Your task to perform on an android device: change notifications settings Image 0: 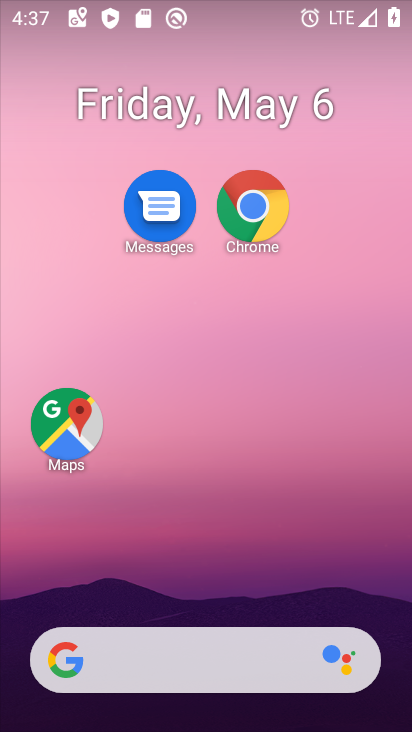
Step 0: drag from (178, 628) to (139, 302)
Your task to perform on an android device: change notifications settings Image 1: 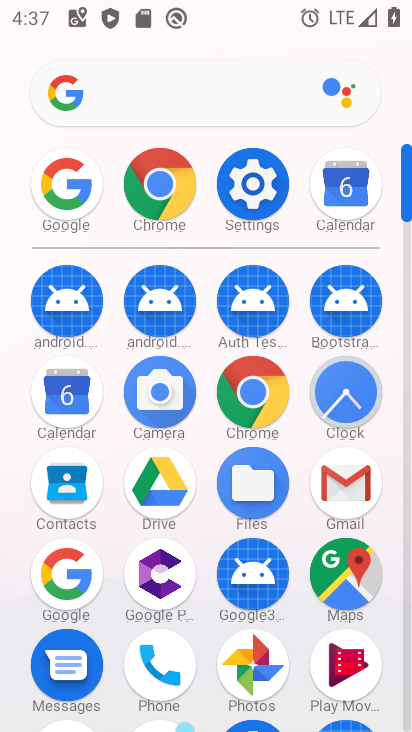
Step 1: click (261, 189)
Your task to perform on an android device: change notifications settings Image 2: 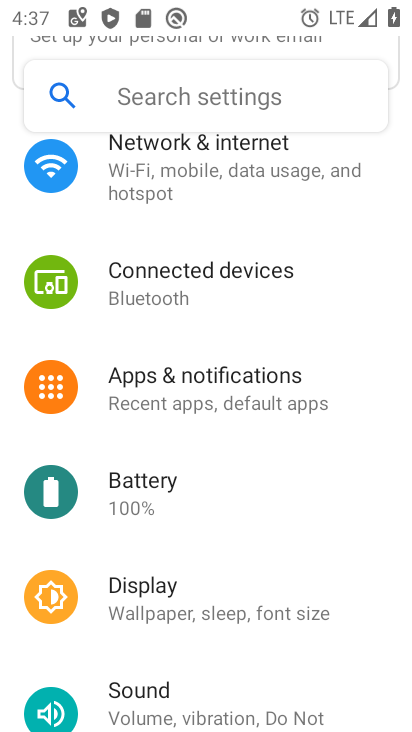
Step 2: click (193, 385)
Your task to perform on an android device: change notifications settings Image 3: 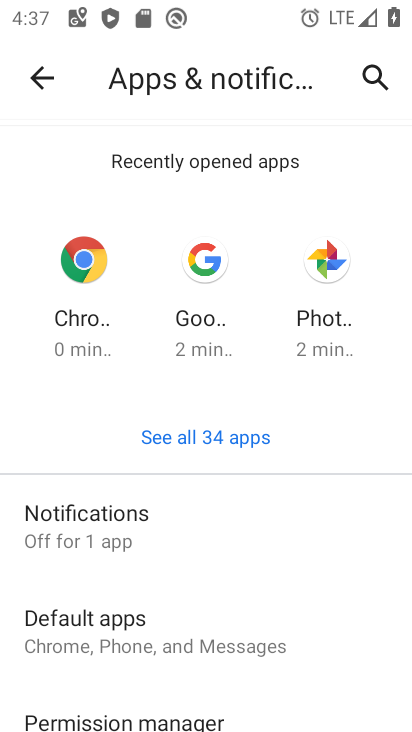
Step 3: click (106, 535)
Your task to perform on an android device: change notifications settings Image 4: 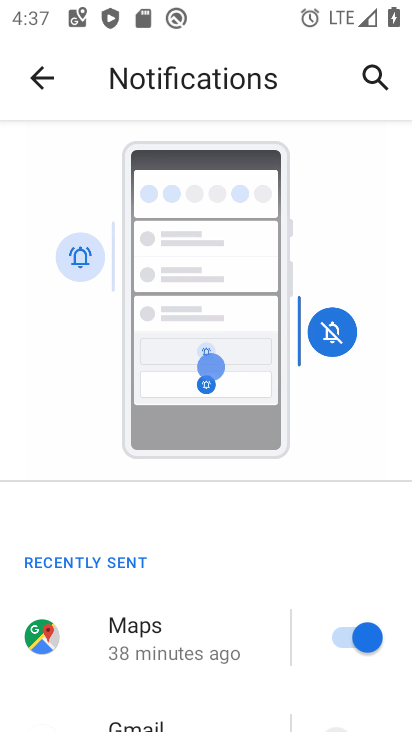
Step 4: drag from (248, 599) to (239, 338)
Your task to perform on an android device: change notifications settings Image 5: 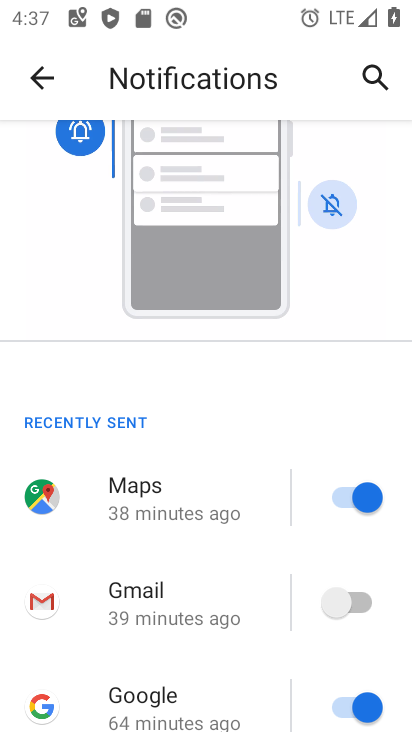
Step 5: click (344, 493)
Your task to perform on an android device: change notifications settings Image 6: 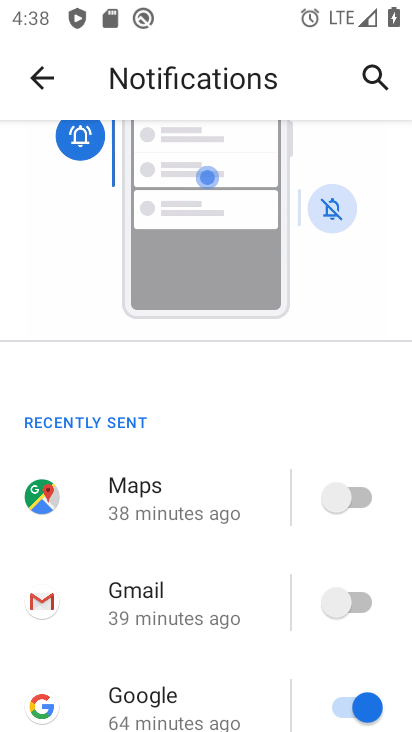
Step 6: drag from (289, 668) to (264, 339)
Your task to perform on an android device: change notifications settings Image 7: 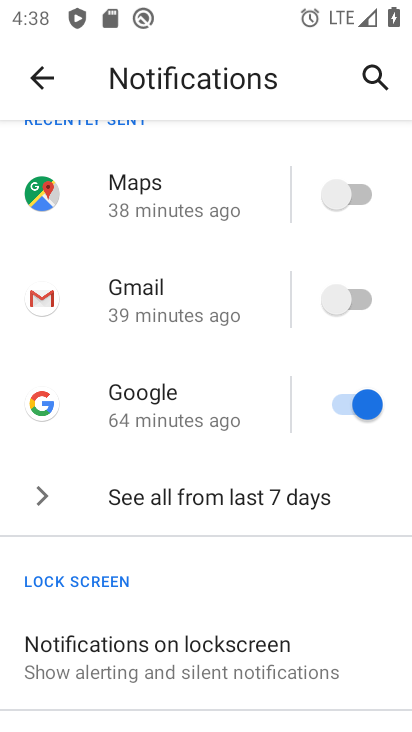
Step 7: click (349, 399)
Your task to perform on an android device: change notifications settings Image 8: 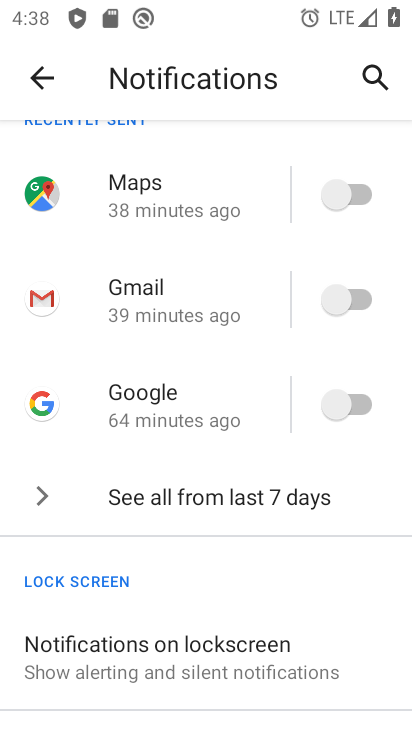
Step 8: click (223, 498)
Your task to perform on an android device: change notifications settings Image 9: 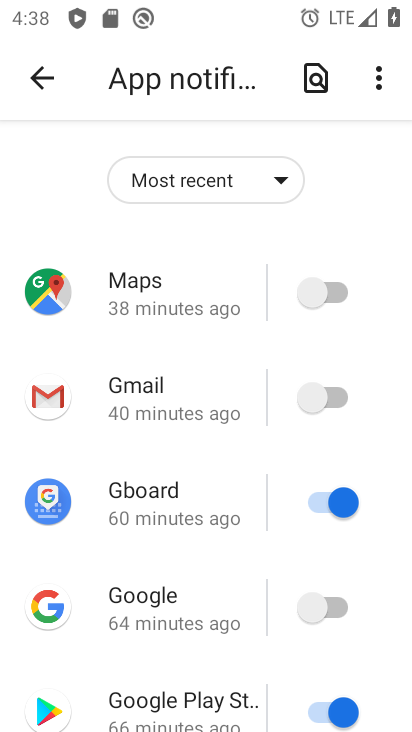
Step 9: click (316, 504)
Your task to perform on an android device: change notifications settings Image 10: 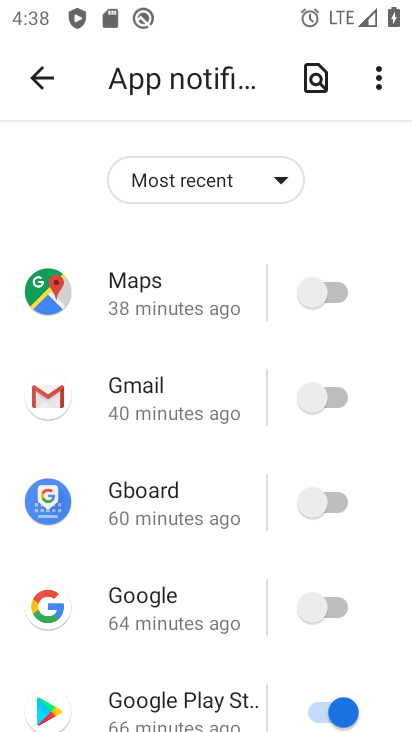
Step 10: drag from (153, 616) to (147, 384)
Your task to perform on an android device: change notifications settings Image 11: 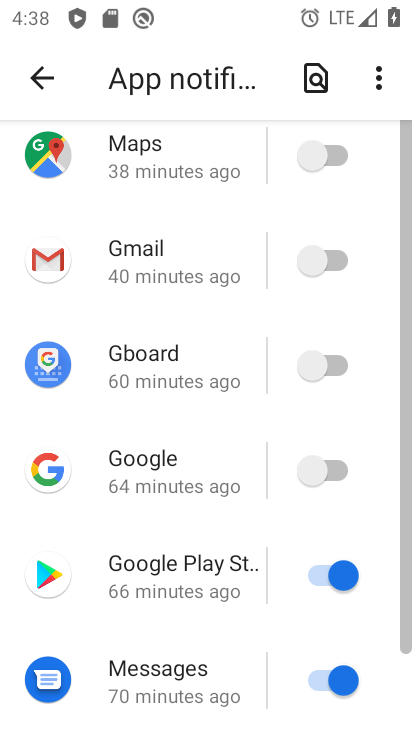
Step 11: click (320, 572)
Your task to perform on an android device: change notifications settings Image 12: 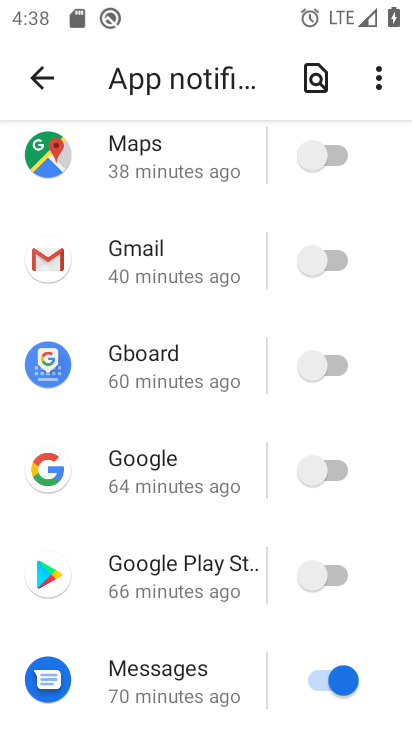
Step 12: click (318, 678)
Your task to perform on an android device: change notifications settings Image 13: 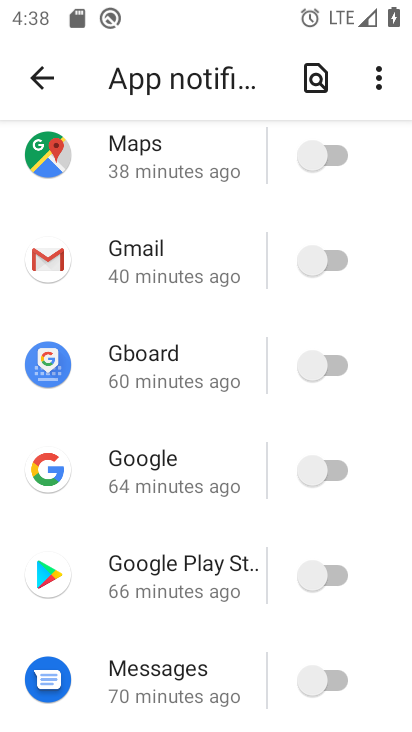
Step 13: drag from (178, 673) to (170, 280)
Your task to perform on an android device: change notifications settings Image 14: 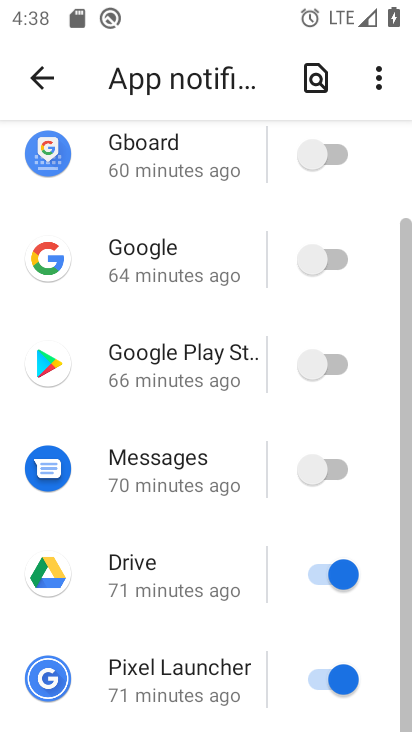
Step 14: click (326, 567)
Your task to perform on an android device: change notifications settings Image 15: 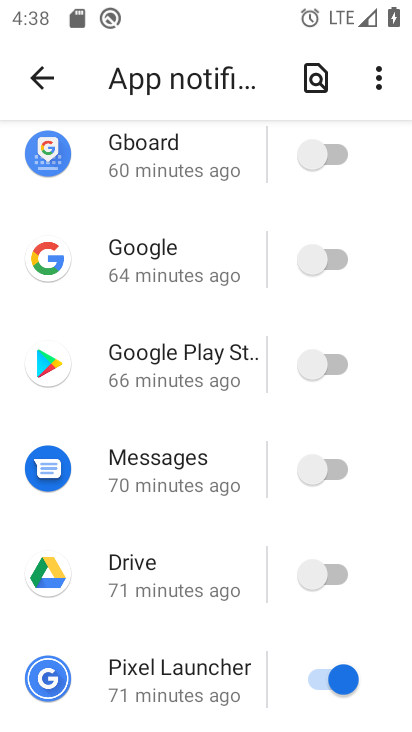
Step 15: click (326, 677)
Your task to perform on an android device: change notifications settings Image 16: 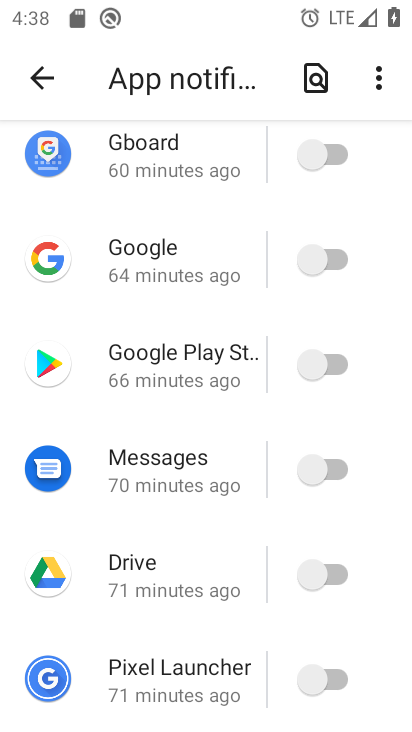
Step 16: task complete